Your task to perform on an android device: change the clock display to analog Image 0: 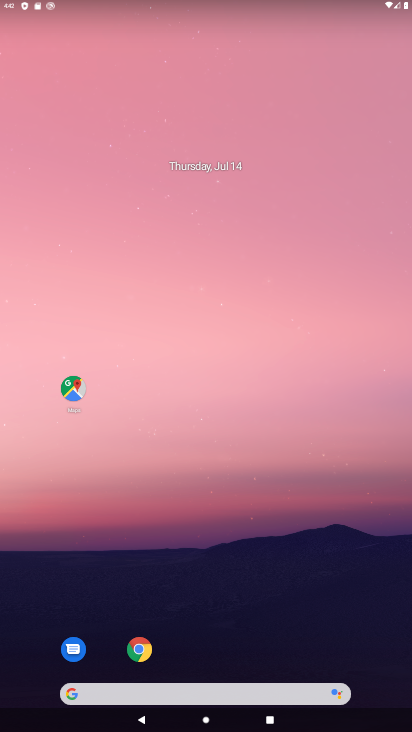
Step 0: drag from (263, 581) to (251, 268)
Your task to perform on an android device: change the clock display to analog Image 1: 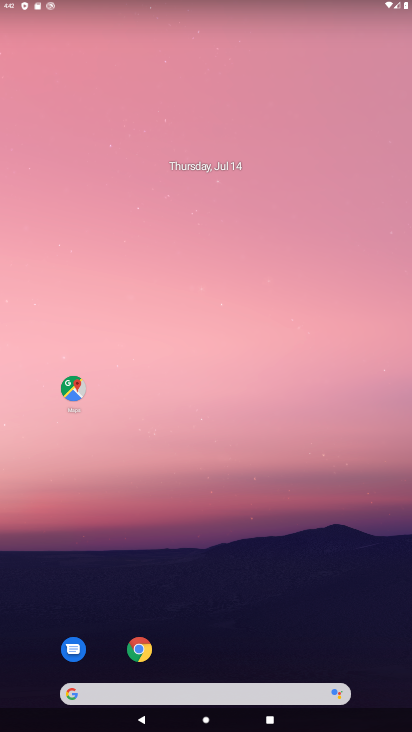
Step 1: drag from (314, 640) to (325, 117)
Your task to perform on an android device: change the clock display to analog Image 2: 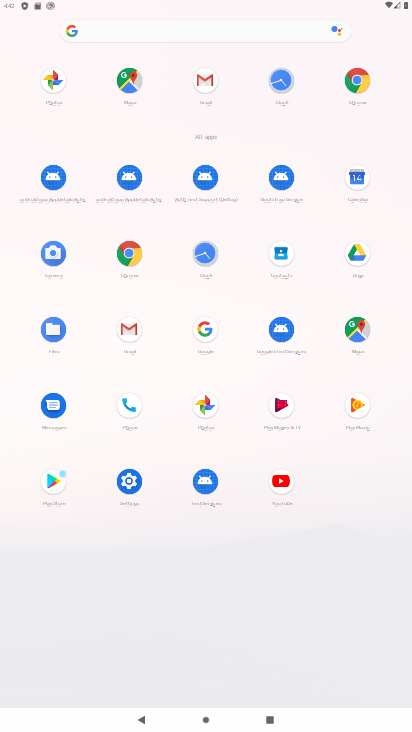
Step 2: click (274, 77)
Your task to perform on an android device: change the clock display to analog Image 3: 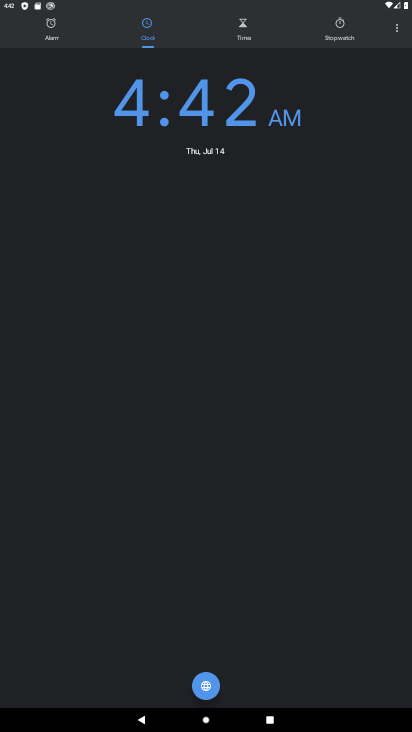
Step 3: click (401, 27)
Your task to perform on an android device: change the clock display to analog Image 4: 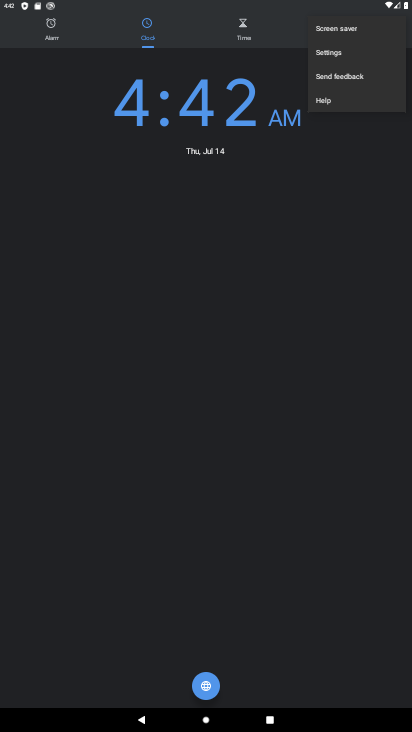
Step 4: click (339, 54)
Your task to perform on an android device: change the clock display to analog Image 5: 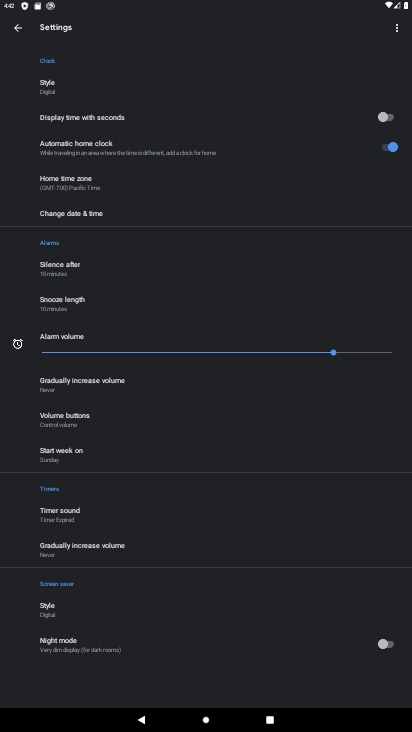
Step 5: click (41, 87)
Your task to perform on an android device: change the clock display to analog Image 6: 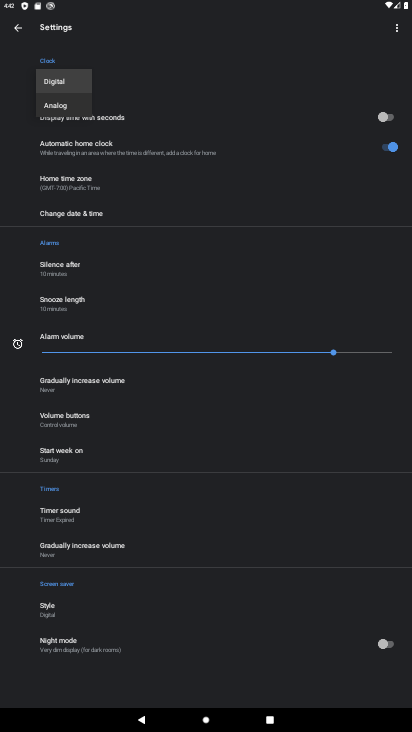
Step 6: click (59, 107)
Your task to perform on an android device: change the clock display to analog Image 7: 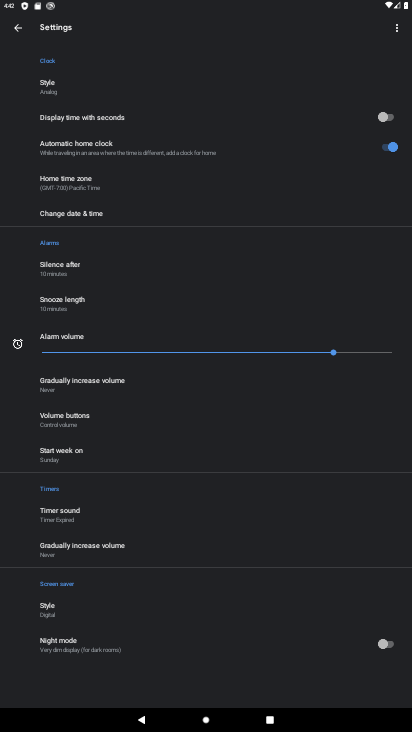
Step 7: task complete